Your task to perform on an android device: Open Reddit.com Image 0: 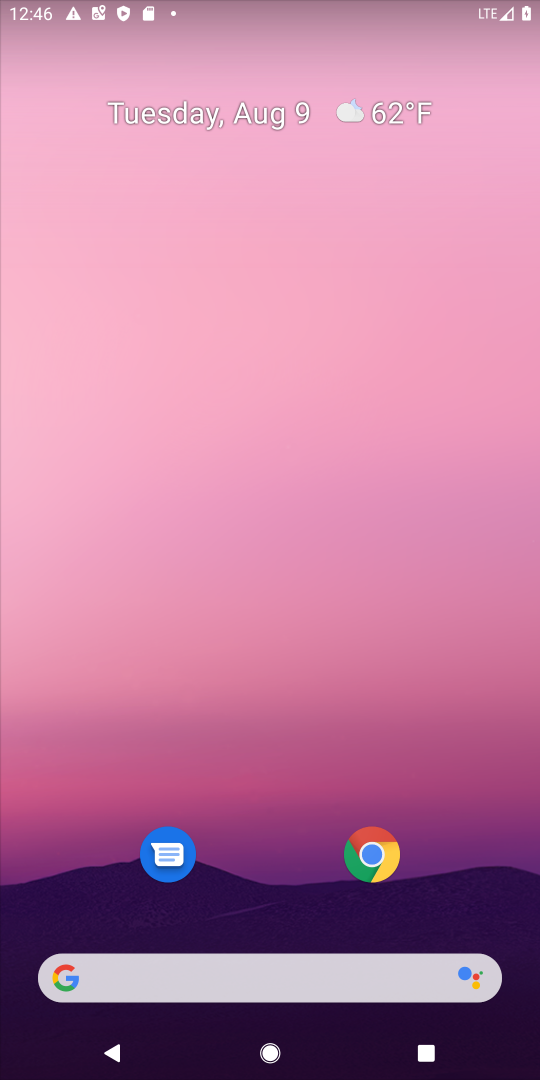
Step 0: click (379, 856)
Your task to perform on an android device: Open Reddit.com Image 1: 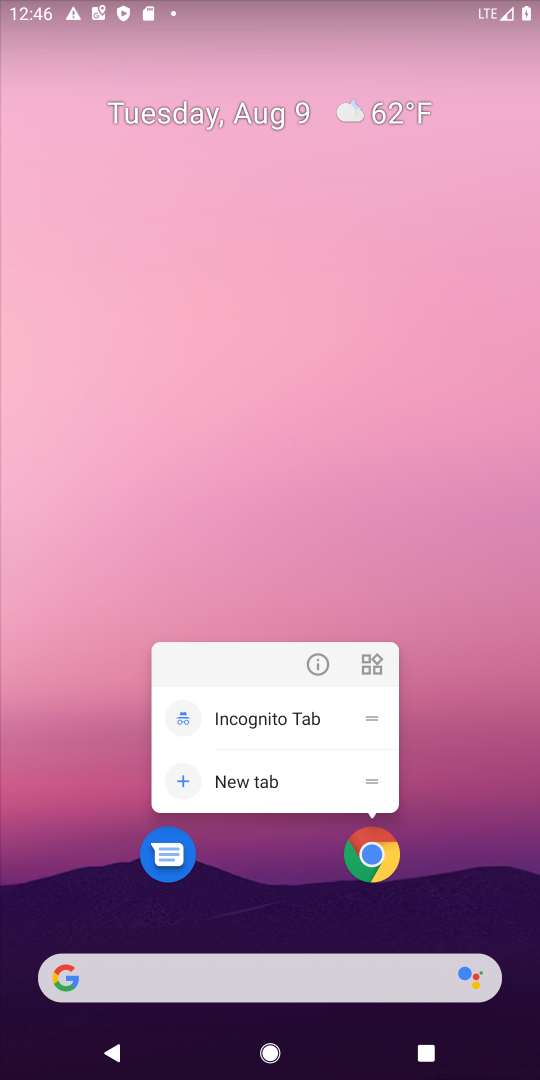
Step 1: click (379, 856)
Your task to perform on an android device: Open Reddit.com Image 2: 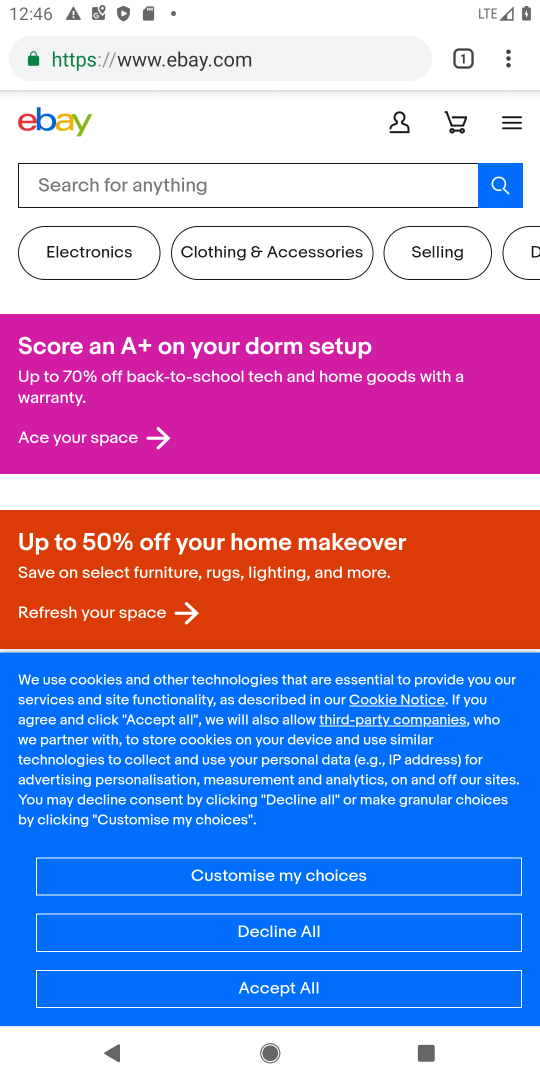
Step 2: click (479, 67)
Your task to perform on an android device: Open Reddit.com Image 3: 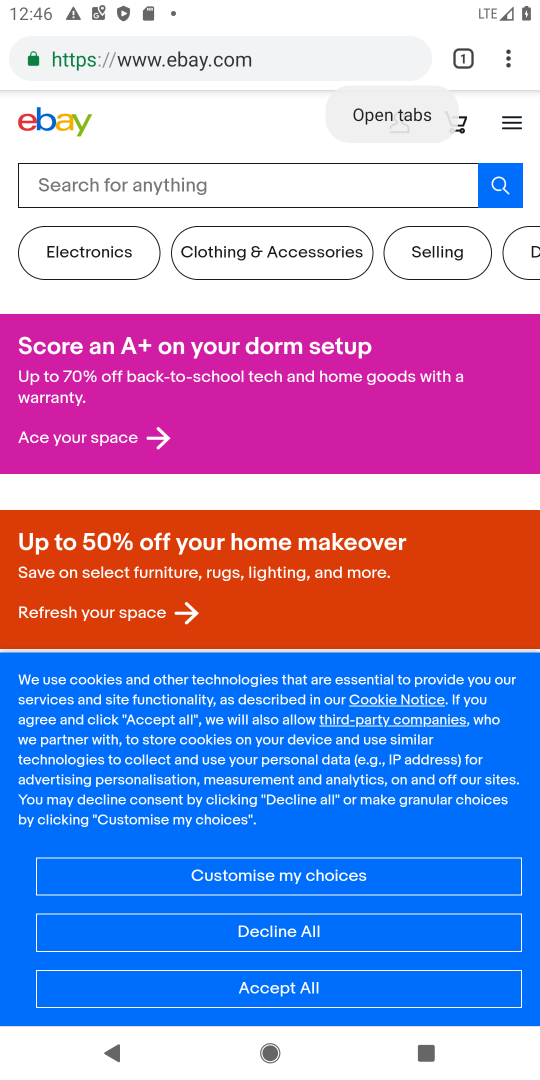
Step 3: click (461, 56)
Your task to perform on an android device: Open Reddit.com Image 4: 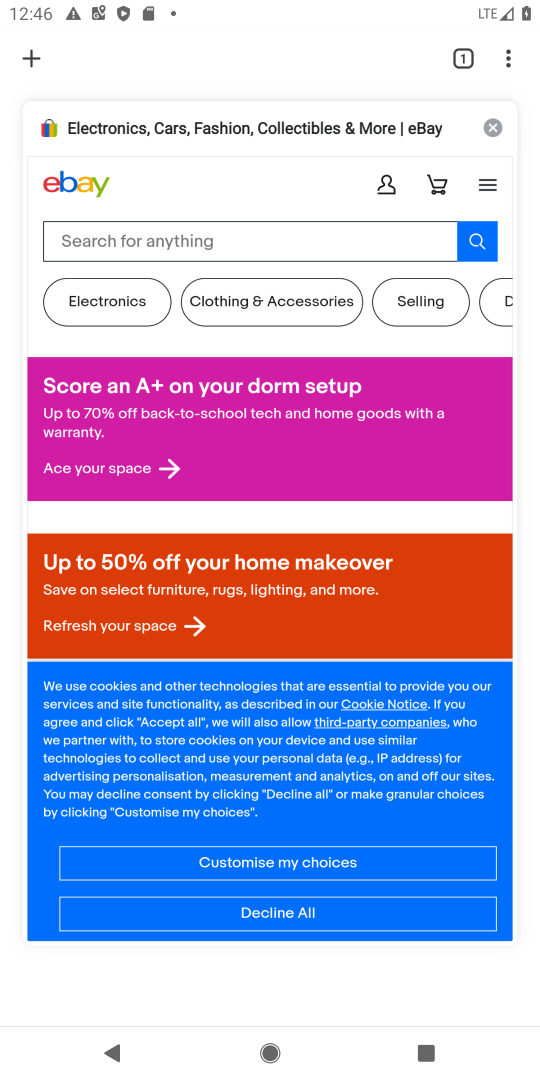
Step 4: click (22, 52)
Your task to perform on an android device: Open Reddit.com Image 5: 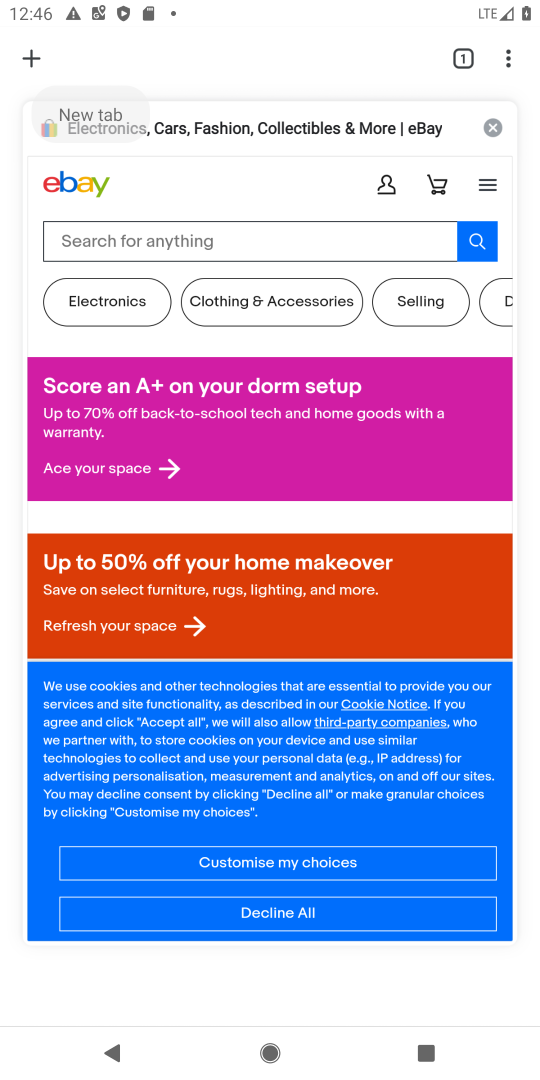
Step 5: click (29, 56)
Your task to perform on an android device: Open Reddit.com Image 6: 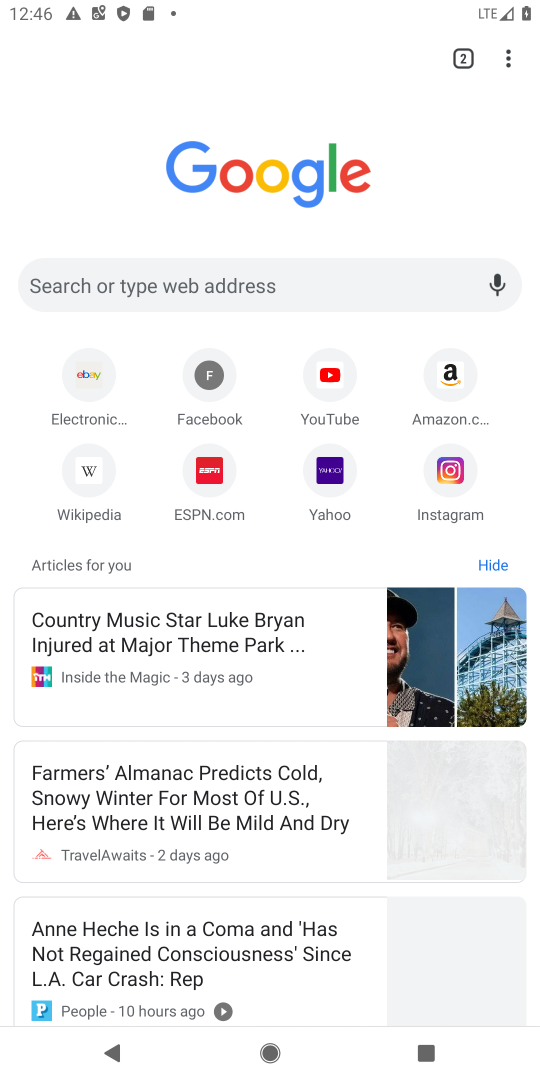
Step 6: click (191, 276)
Your task to perform on an android device: Open Reddit.com Image 7: 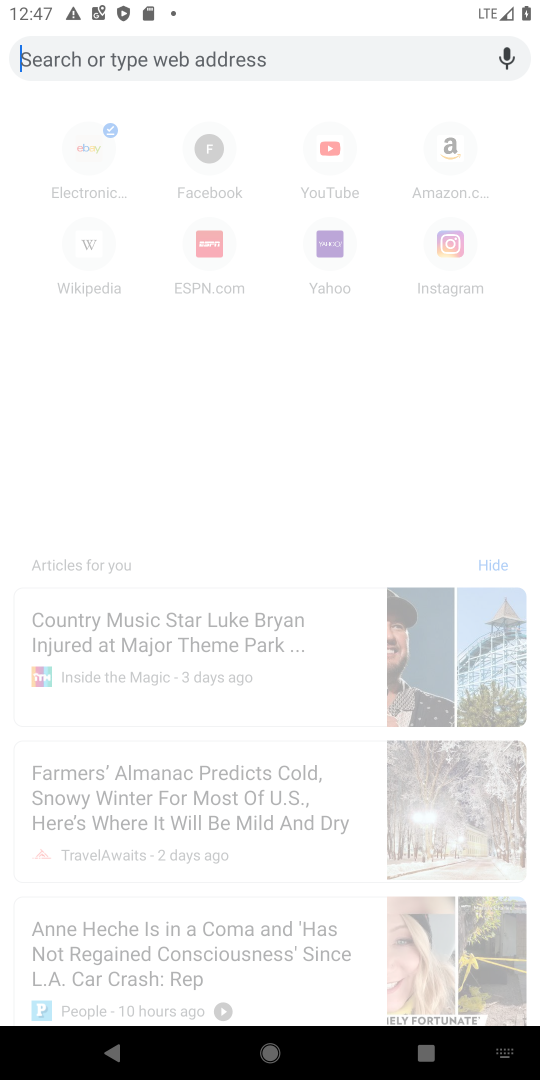
Step 7: type "reddit.com"
Your task to perform on an android device: Open Reddit.com Image 8: 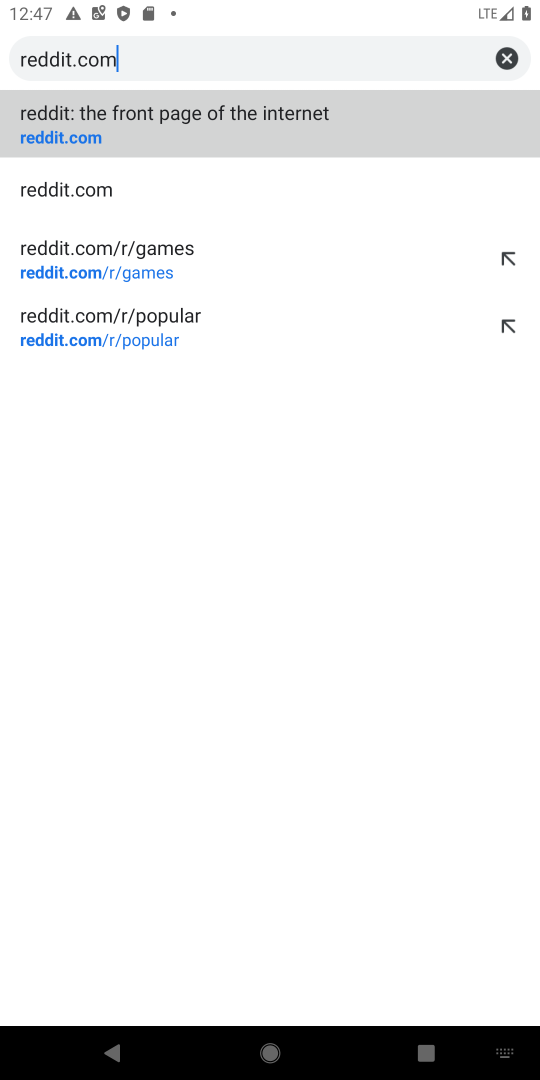
Step 8: click (157, 120)
Your task to perform on an android device: Open Reddit.com Image 9: 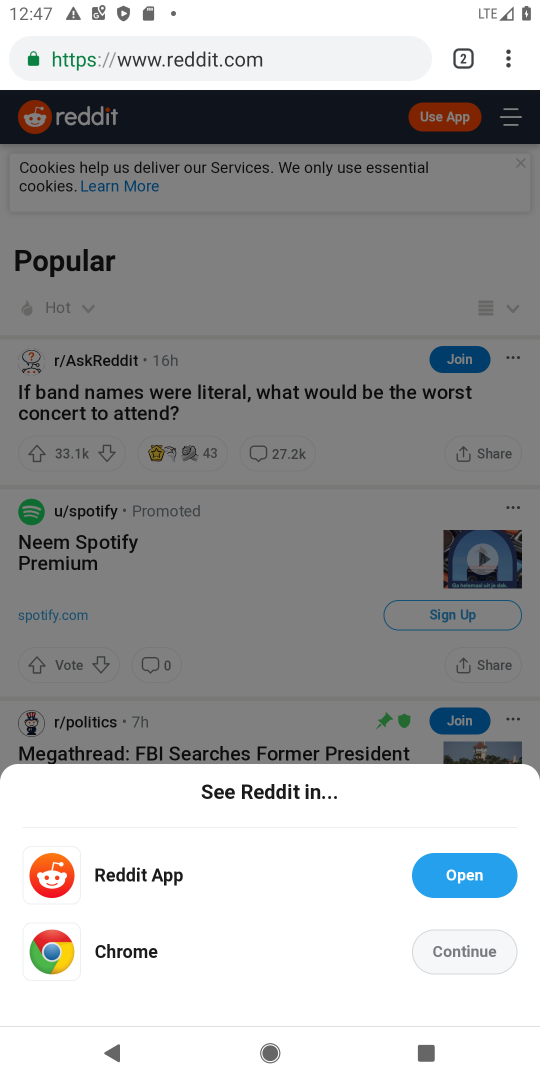
Step 9: task complete